Your task to perform on an android device: Clear the cart on ebay. Search for "bose soundlink" on ebay, select the first entry, add it to the cart, then select checkout. Image 0: 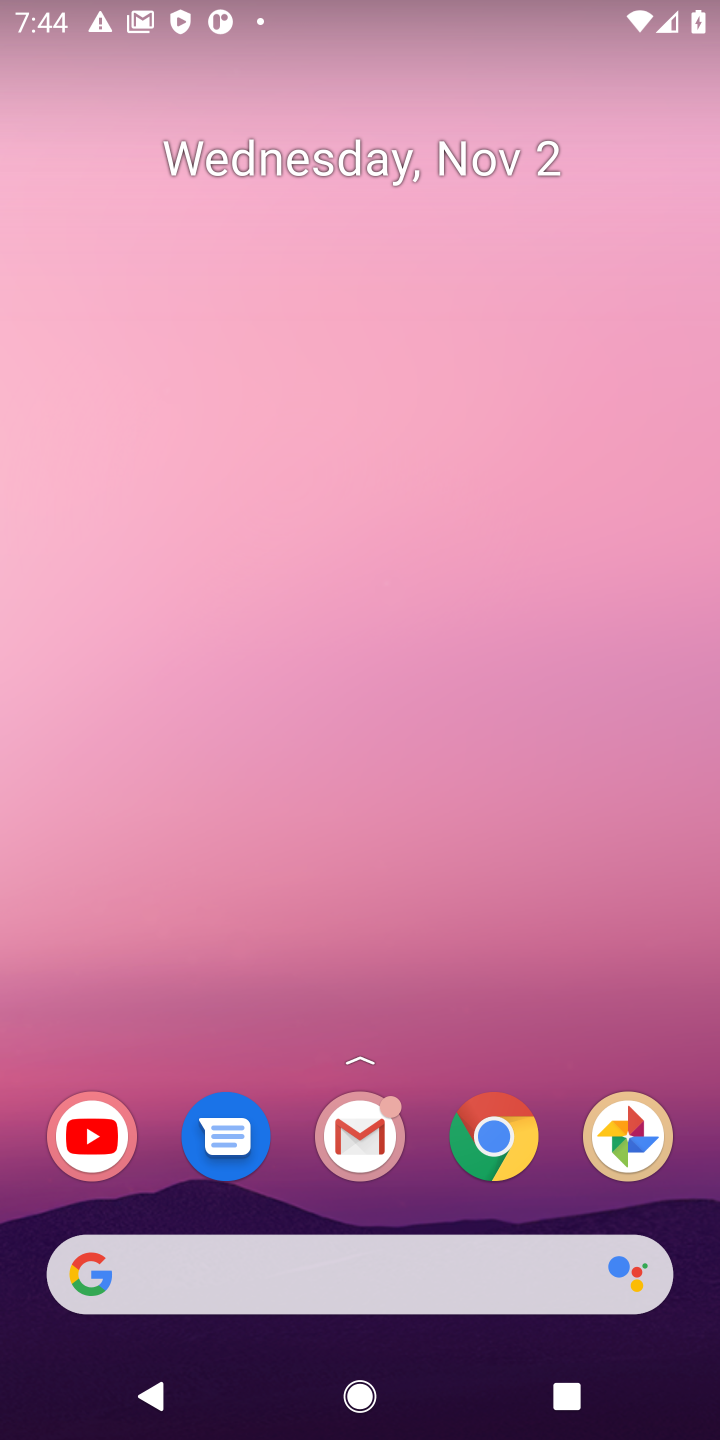
Step 0: drag from (220, 1105) to (336, 504)
Your task to perform on an android device: Clear the cart on ebay. Search for "bose soundlink" on ebay, select the first entry, add it to the cart, then select checkout. Image 1: 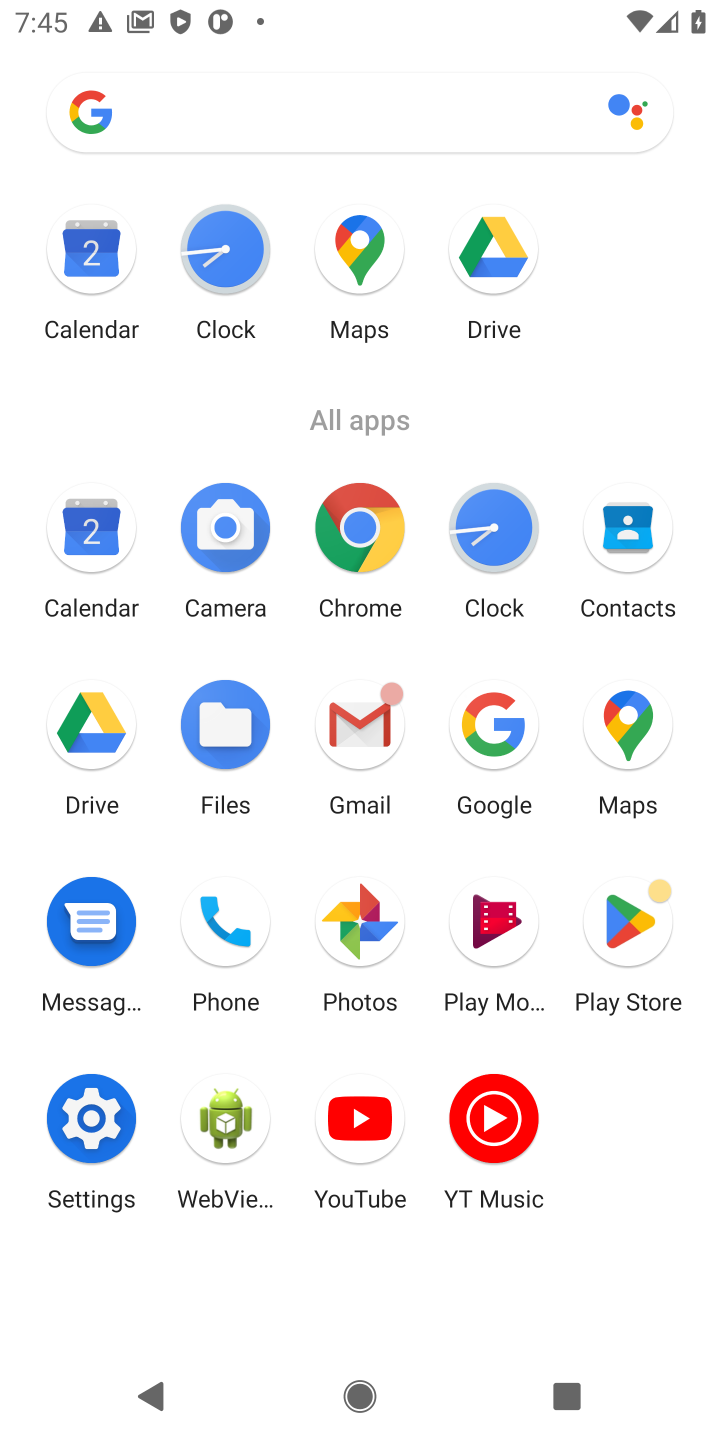
Step 1: click (478, 716)
Your task to perform on an android device: Clear the cart on ebay. Search for "bose soundlink" on ebay, select the first entry, add it to the cart, then select checkout. Image 2: 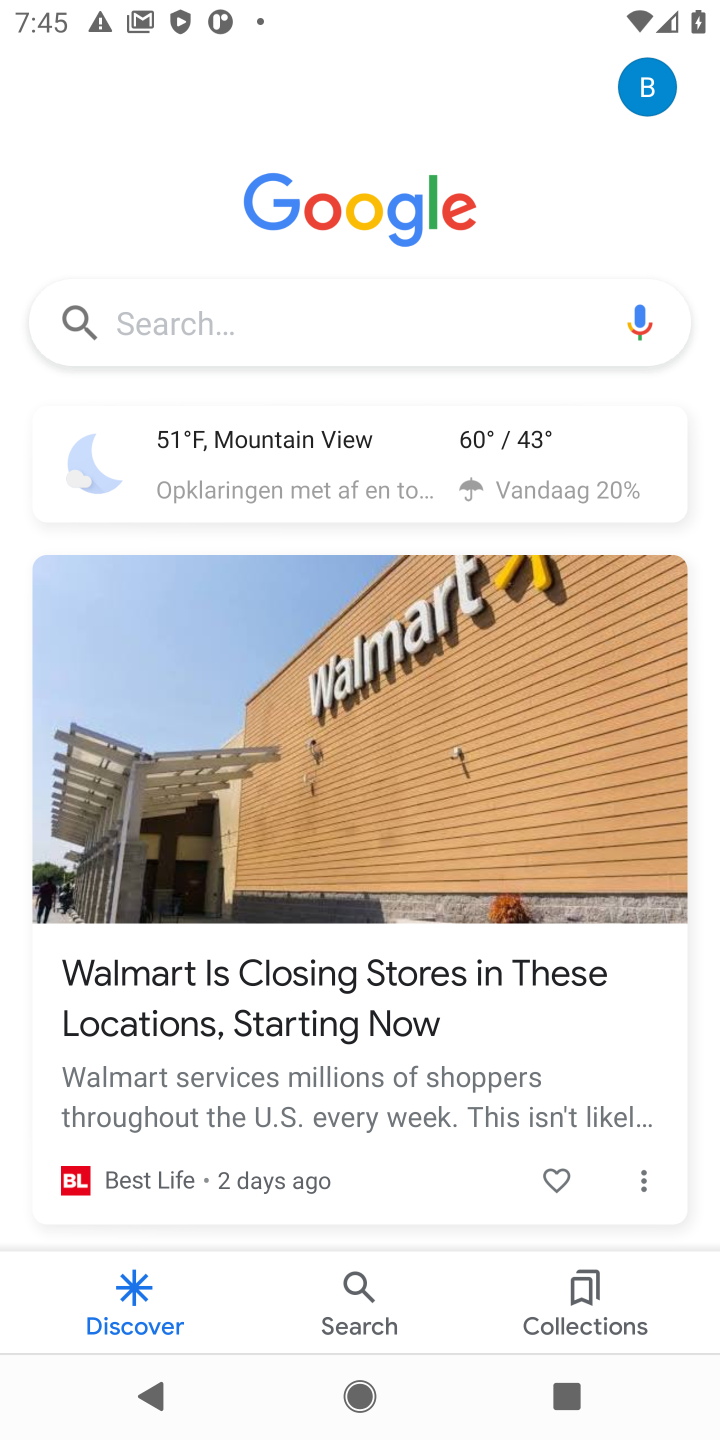
Step 2: click (334, 316)
Your task to perform on an android device: Clear the cart on ebay. Search for "bose soundlink" on ebay, select the first entry, add it to the cart, then select checkout. Image 3: 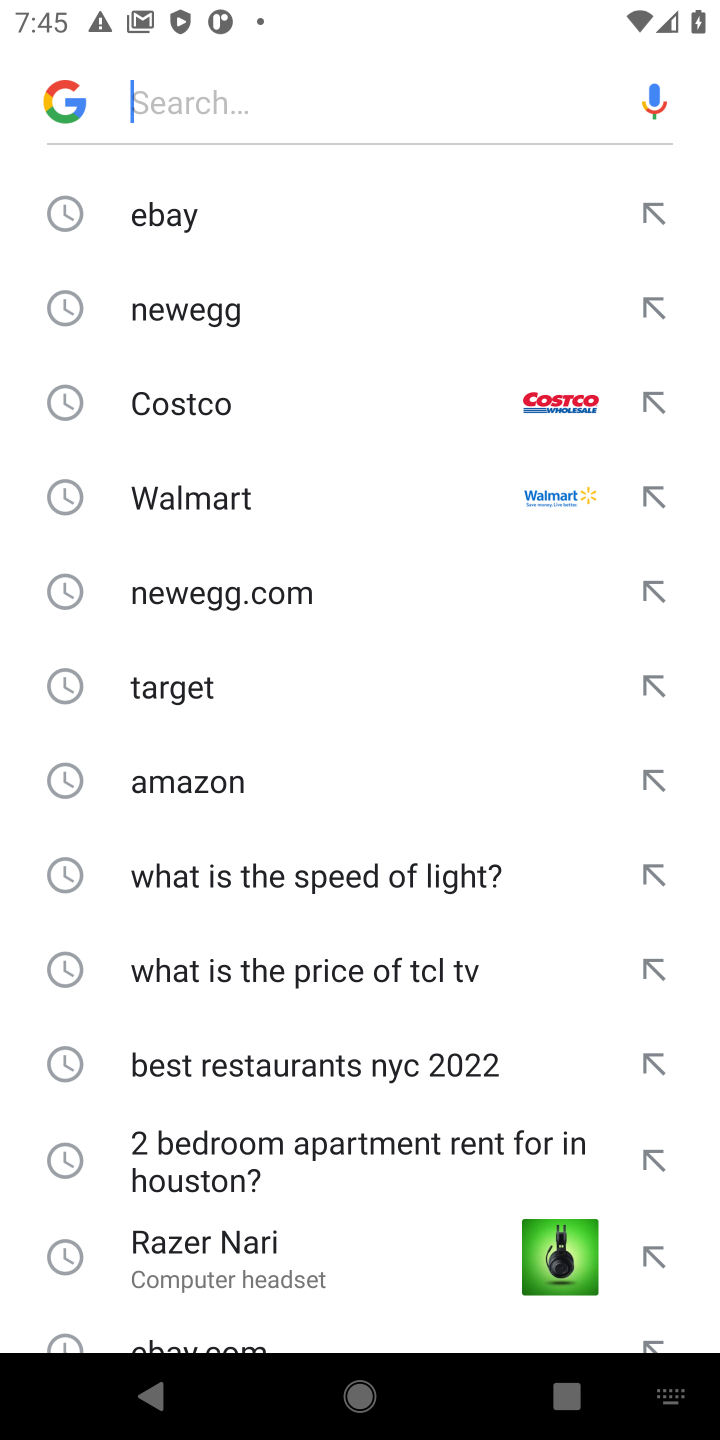
Step 3: type "ebay "
Your task to perform on an android device: Clear the cart on ebay. Search for "bose soundlink" on ebay, select the first entry, add it to the cart, then select checkout. Image 4: 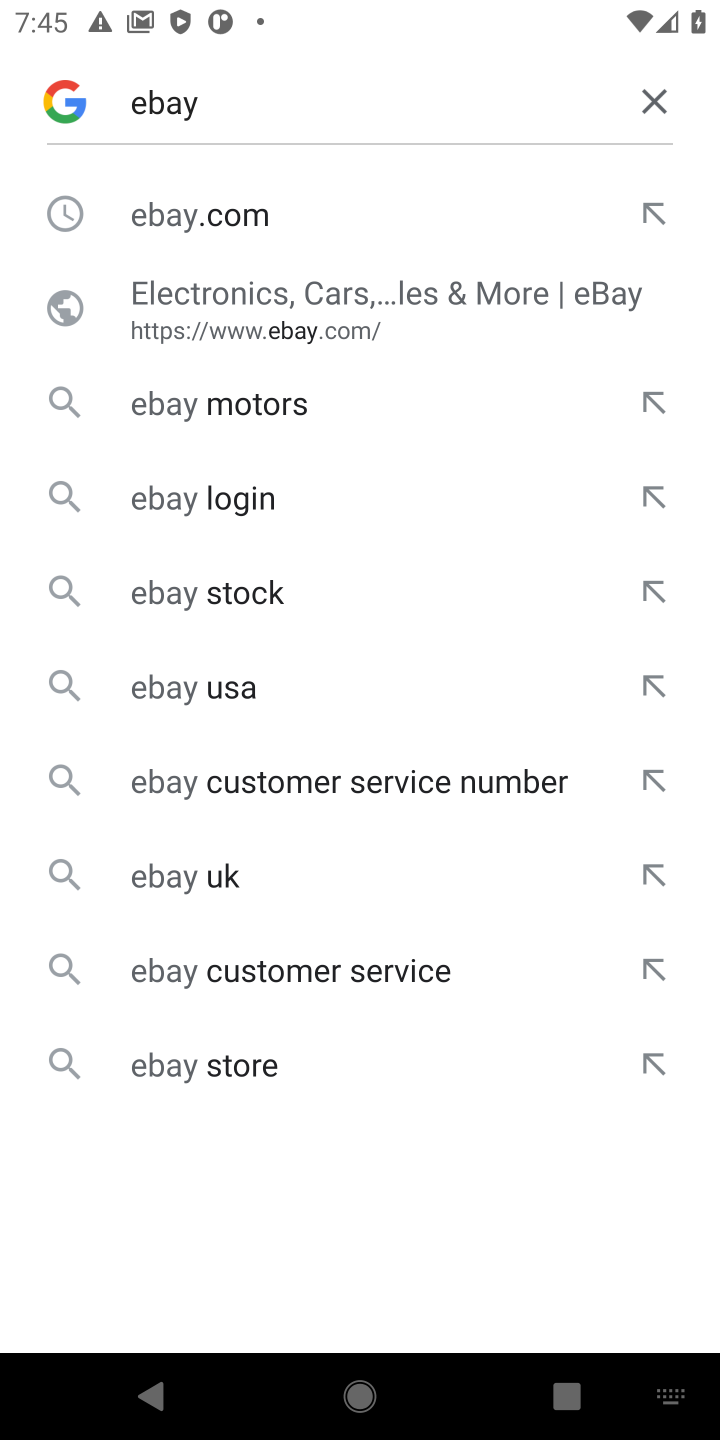
Step 4: click (163, 217)
Your task to perform on an android device: Clear the cart on ebay. Search for "bose soundlink" on ebay, select the first entry, add it to the cart, then select checkout. Image 5: 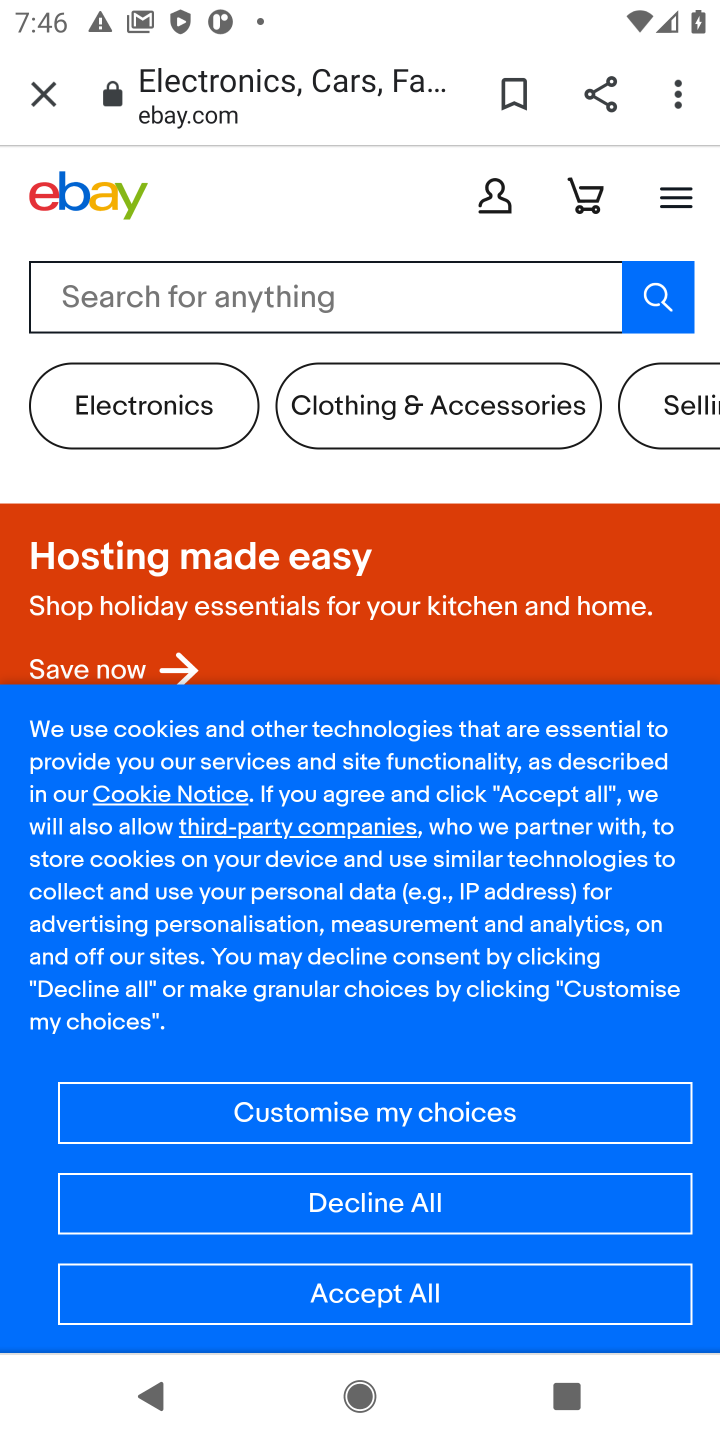
Step 5: click (367, 1287)
Your task to perform on an android device: Clear the cart on ebay. Search for "bose soundlink" on ebay, select the first entry, add it to the cart, then select checkout. Image 6: 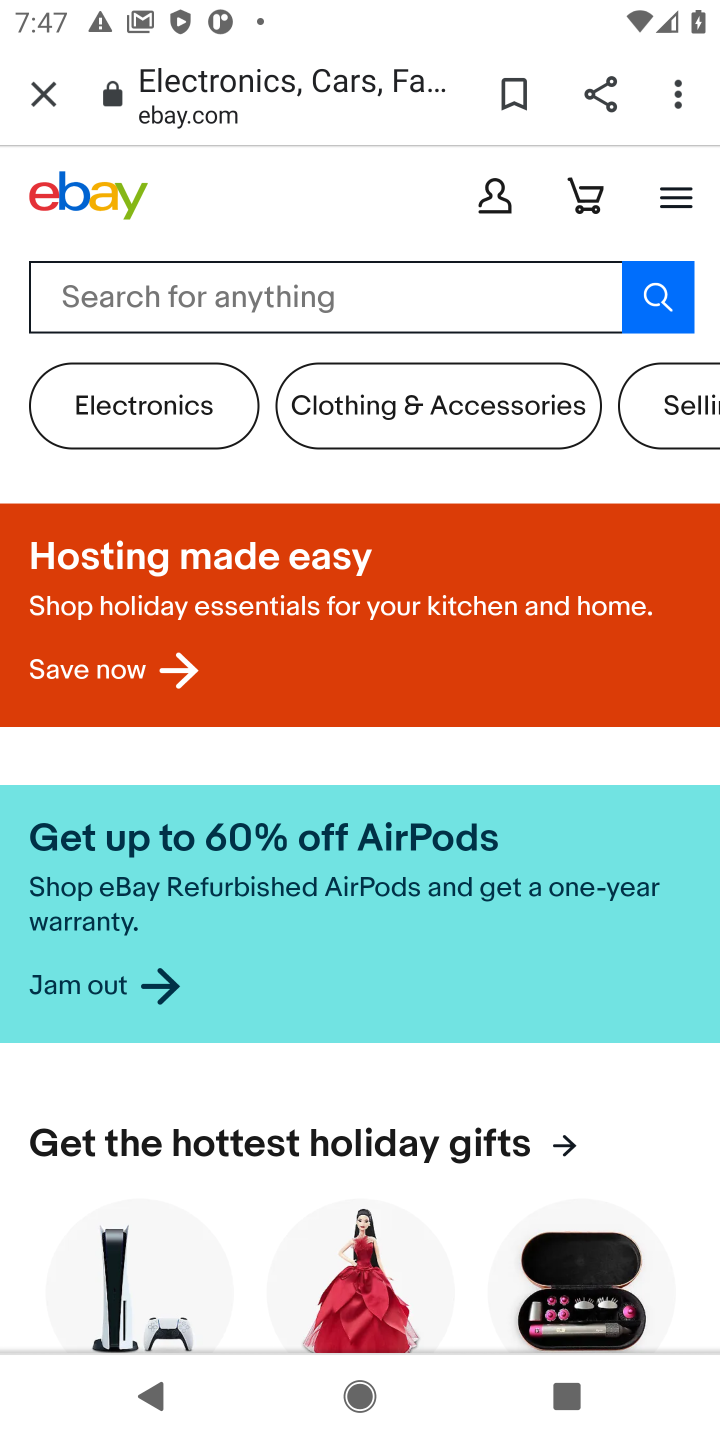
Step 6: click (363, 278)
Your task to perform on an android device: Clear the cart on ebay. Search for "bose soundlink" on ebay, select the first entry, add it to the cart, then select checkout. Image 7: 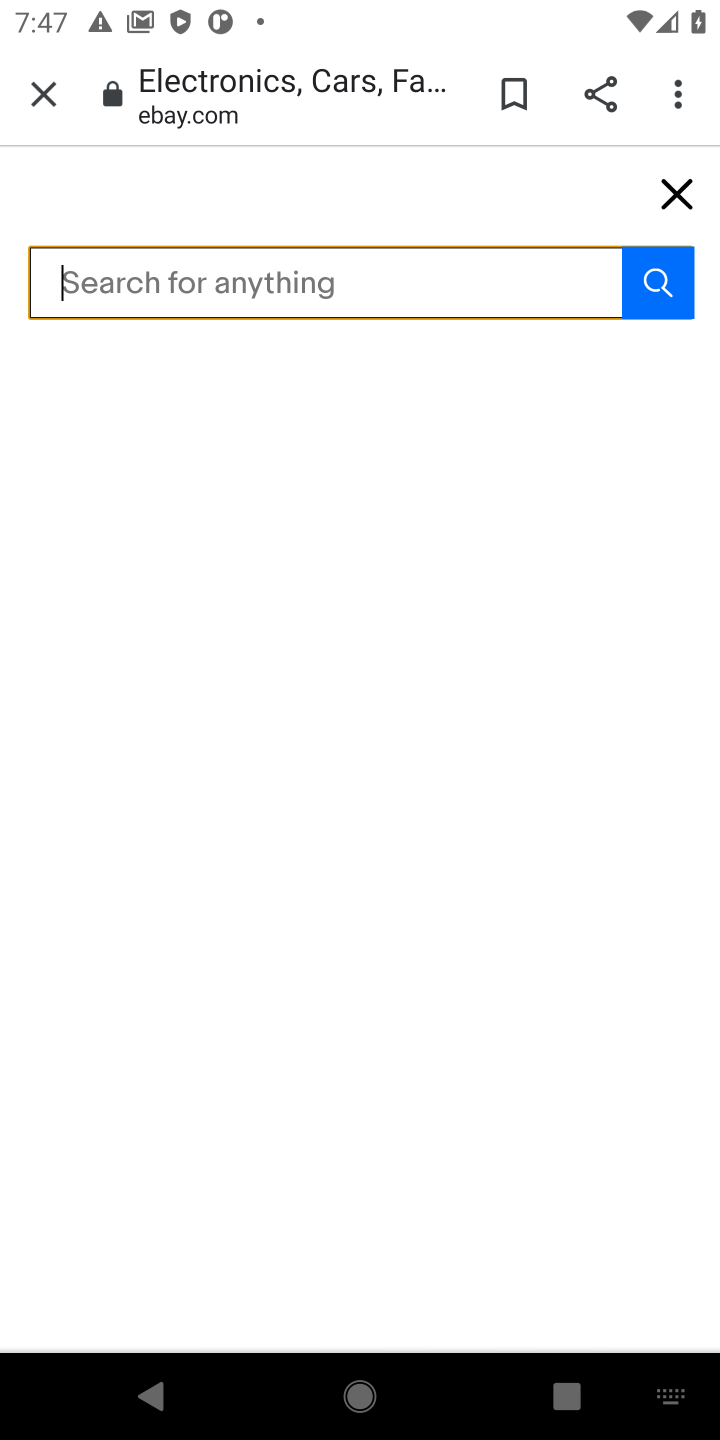
Step 7: type "bose soundlink "
Your task to perform on an android device: Clear the cart on ebay. Search for "bose soundlink" on ebay, select the first entry, add it to the cart, then select checkout. Image 8: 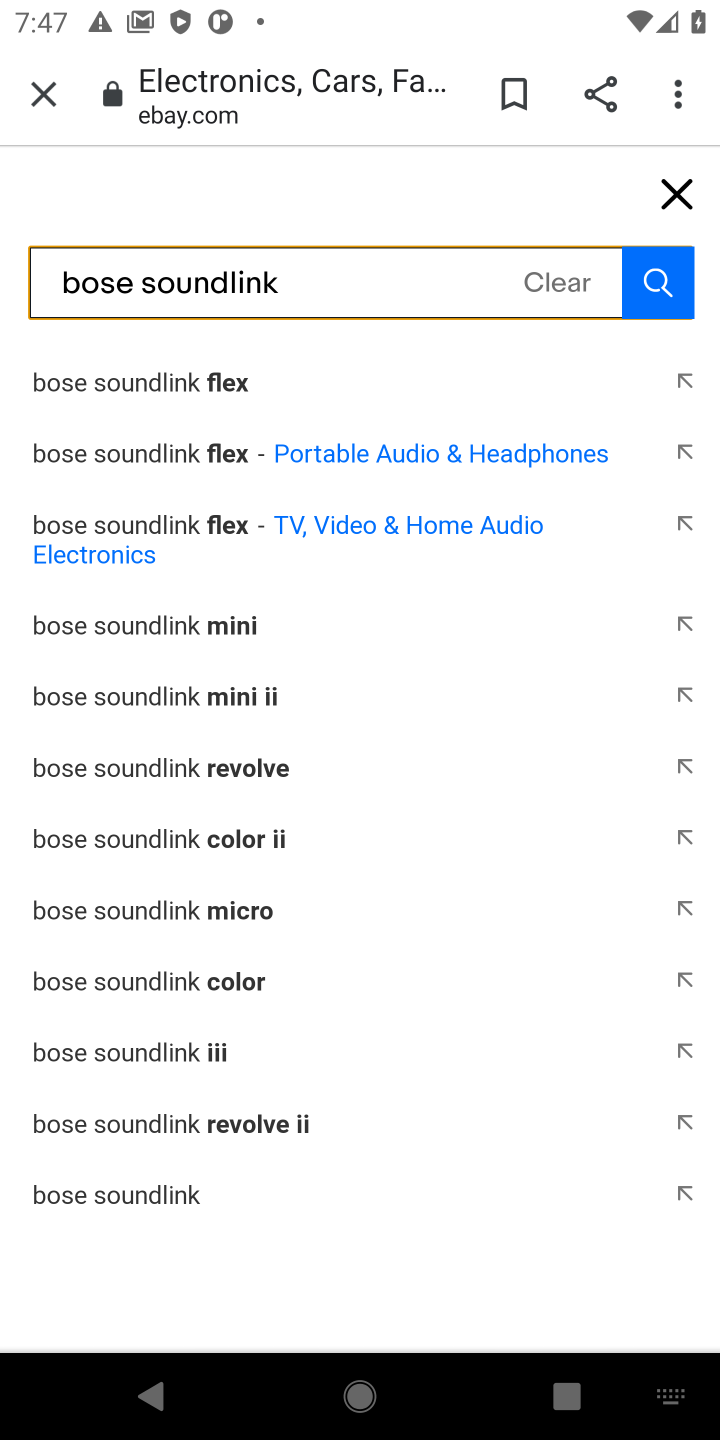
Step 8: click (169, 371)
Your task to perform on an android device: Clear the cart on ebay. Search for "bose soundlink" on ebay, select the first entry, add it to the cart, then select checkout. Image 9: 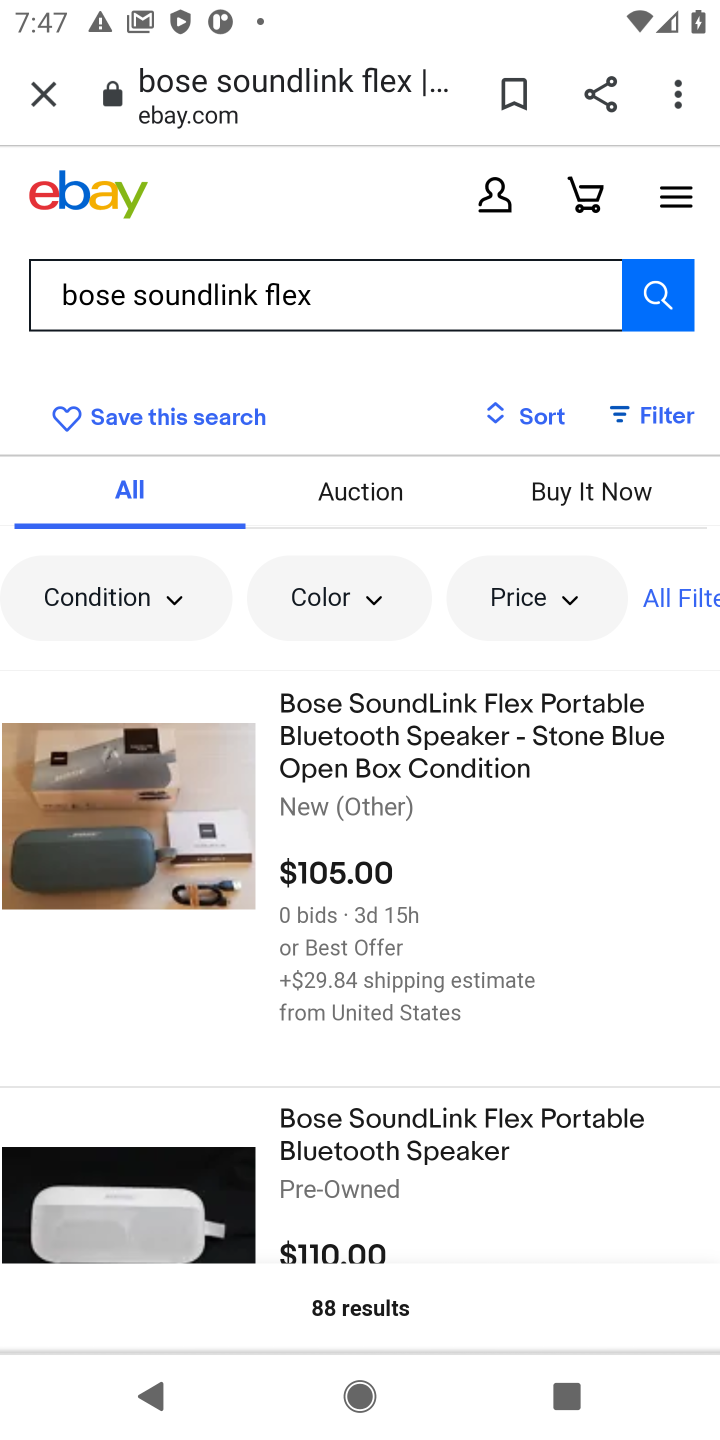
Step 9: click (450, 746)
Your task to perform on an android device: Clear the cart on ebay. Search for "bose soundlink" on ebay, select the first entry, add it to the cart, then select checkout. Image 10: 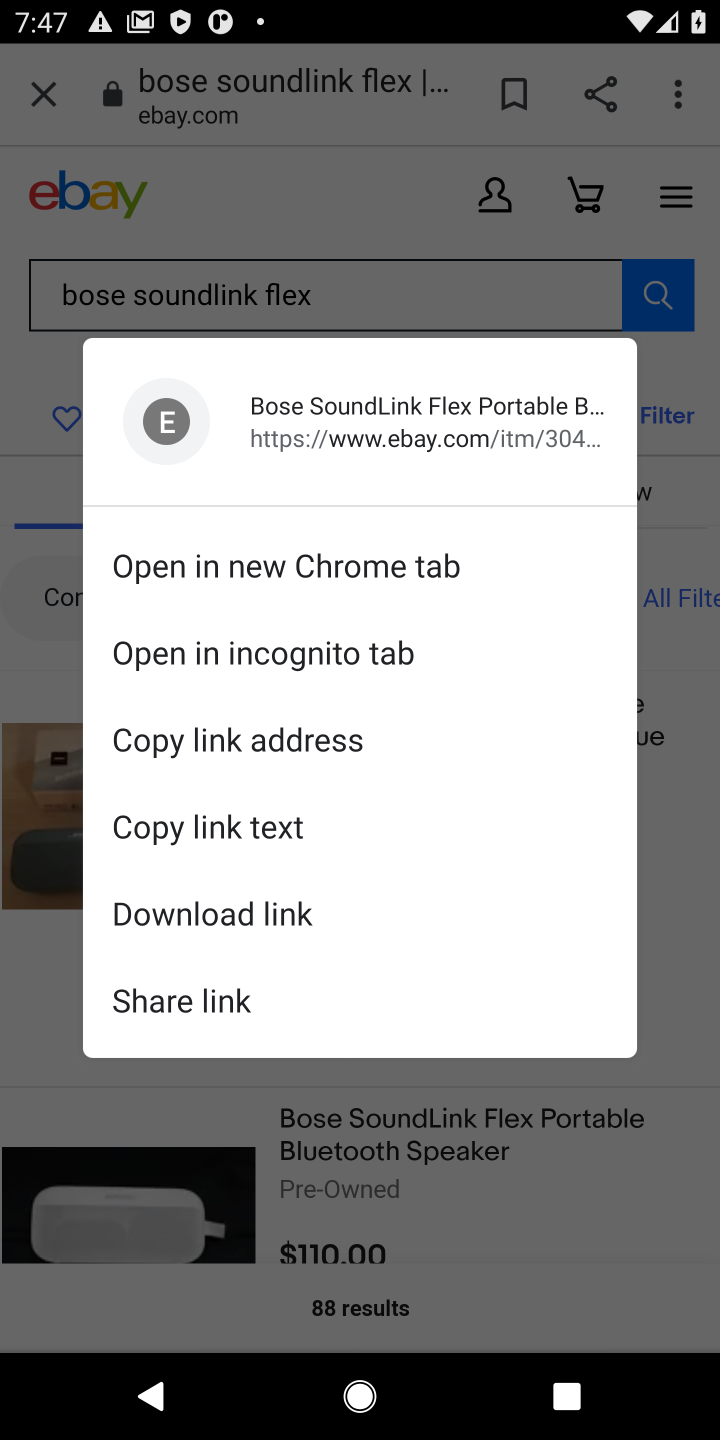
Step 10: click (498, 1190)
Your task to perform on an android device: Clear the cart on ebay. Search for "bose soundlink" on ebay, select the first entry, add it to the cart, then select checkout. Image 11: 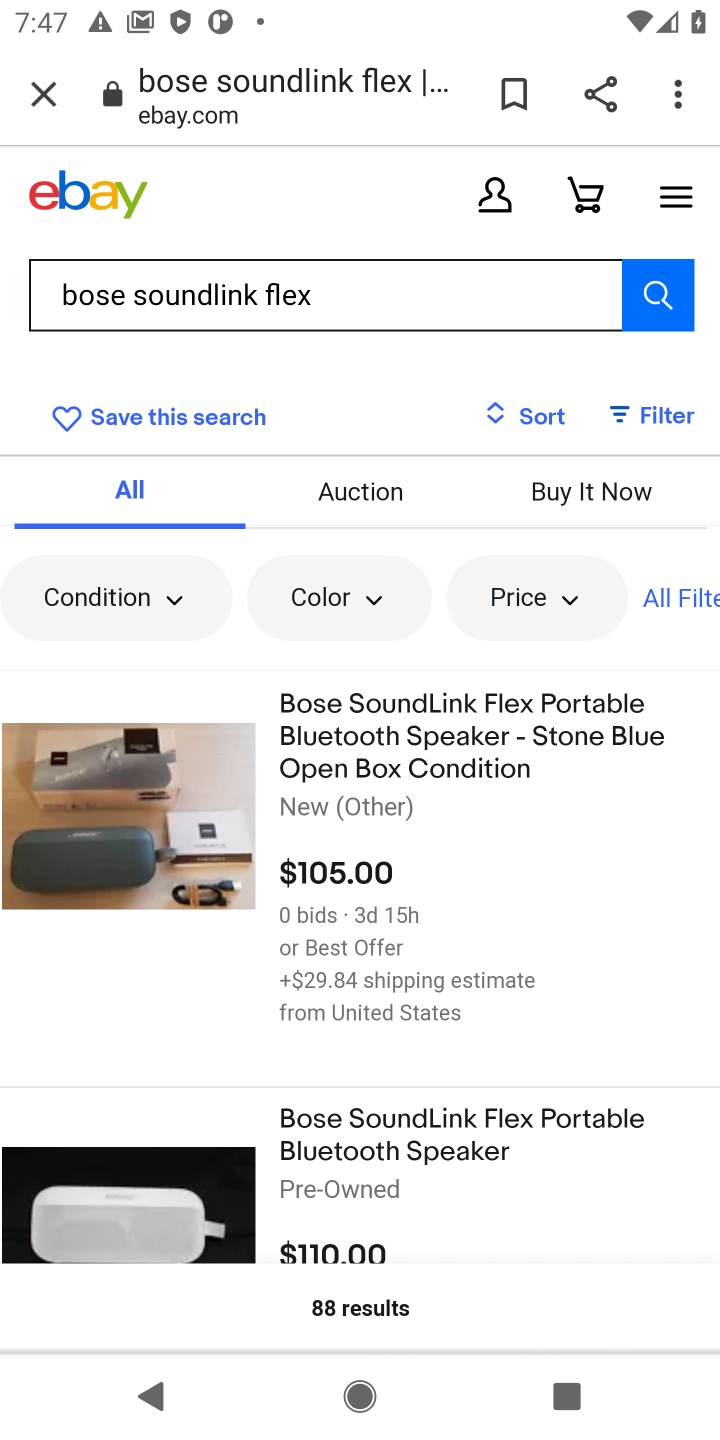
Step 11: drag from (513, 1180) to (552, 395)
Your task to perform on an android device: Clear the cart on ebay. Search for "bose soundlink" on ebay, select the first entry, add it to the cart, then select checkout. Image 12: 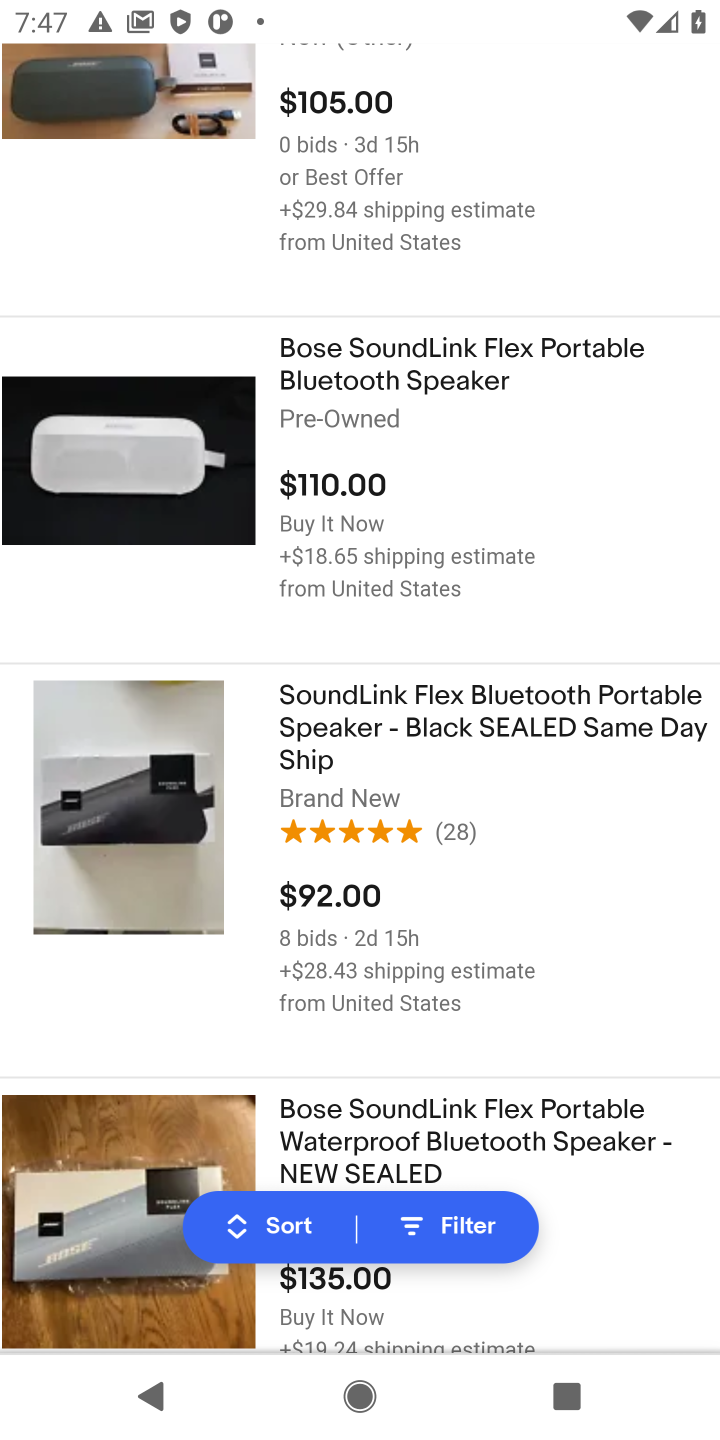
Step 12: click (361, 368)
Your task to perform on an android device: Clear the cart on ebay. Search for "bose soundlink" on ebay, select the first entry, add it to the cart, then select checkout. Image 13: 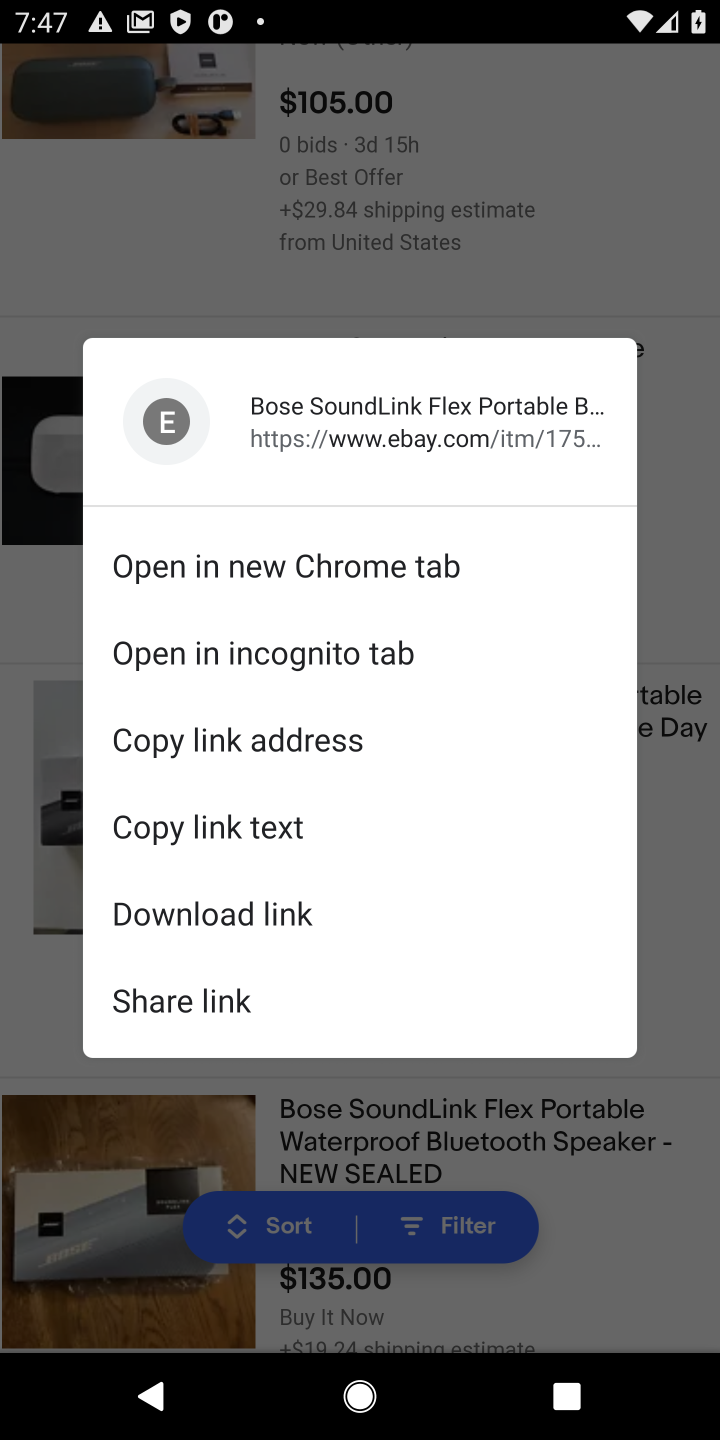
Step 13: click (374, 267)
Your task to perform on an android device: Clear the cart on ebay. Search for "bose soundlink" on ebay, select the first entry, add it to the cart, then select checkout. Image 14: 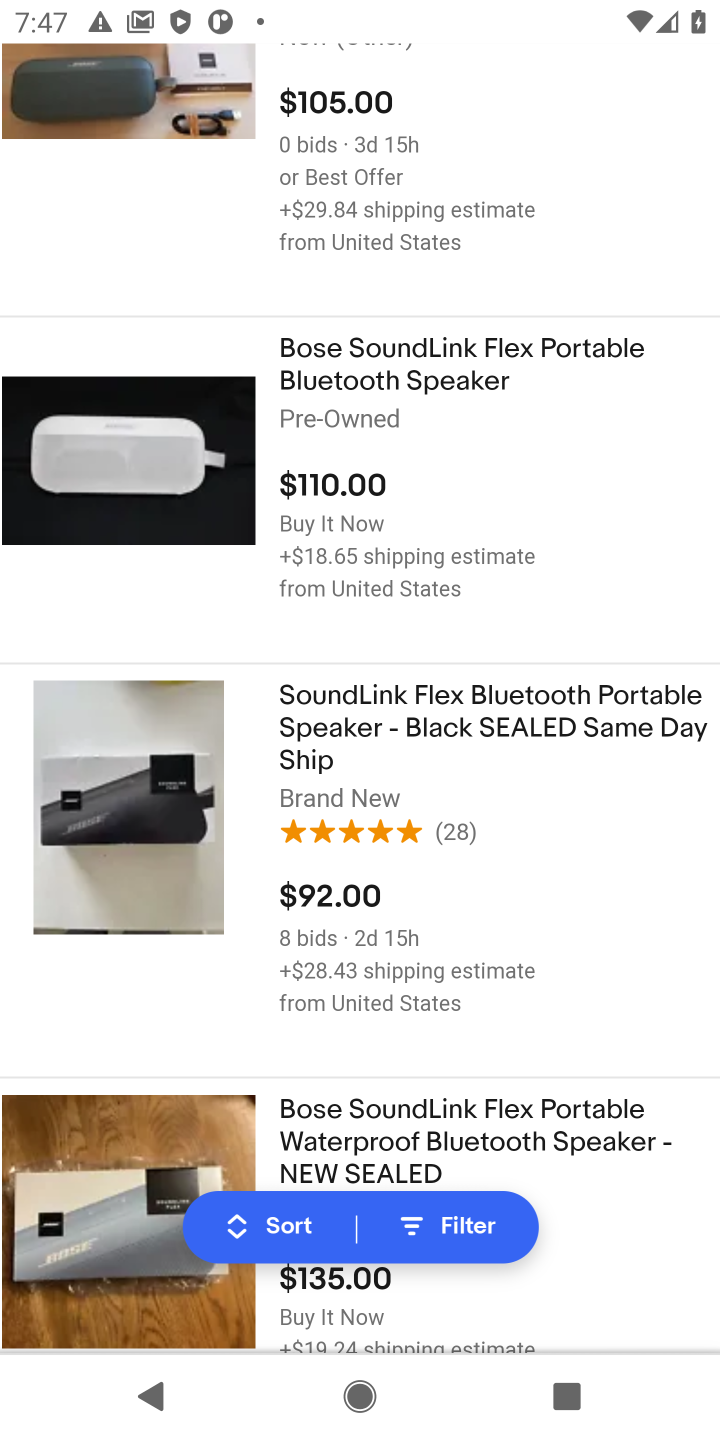
Step 14: drag from (453, 283) to (428, 1145)
Your task to perform on an android device: Clear the cart on ebay. Search for "bose soundlink" on ebay, select the first entry, add it to the cart, then select checkout. Image 15: 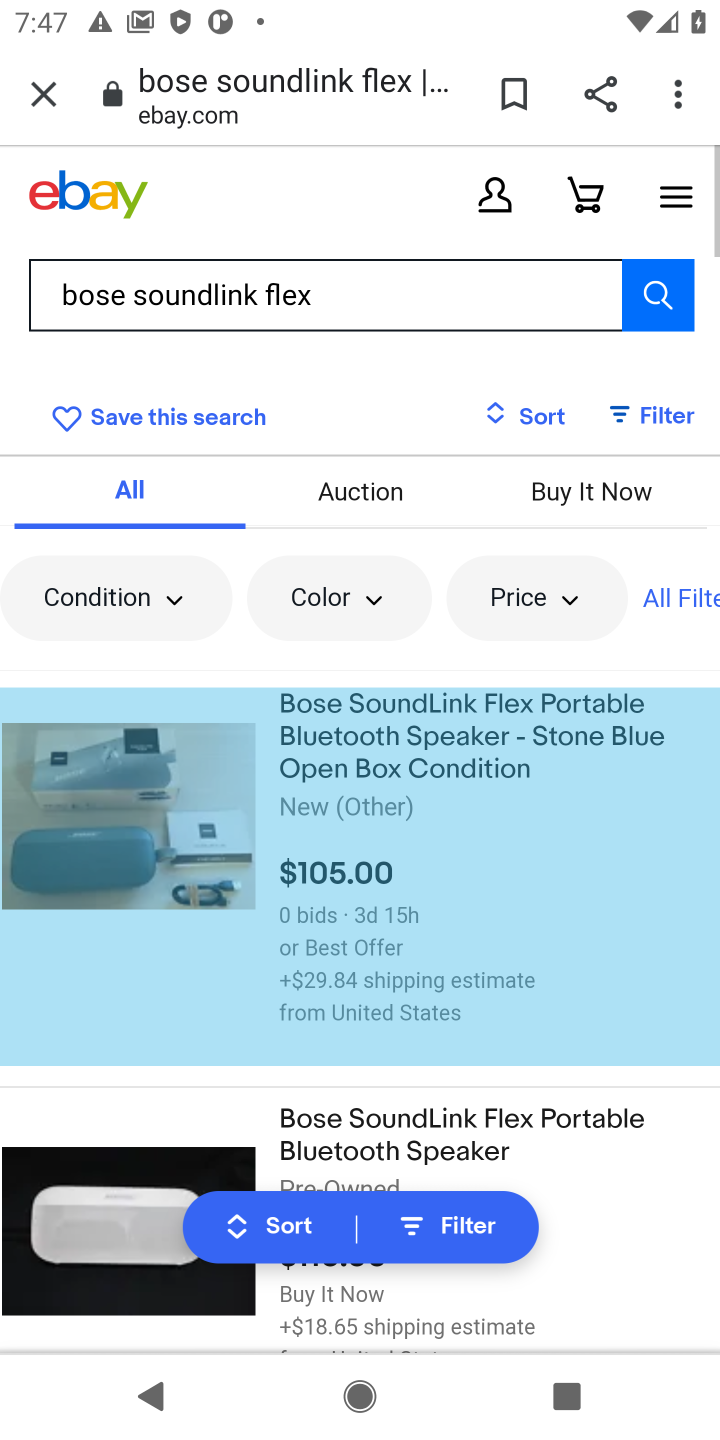
Step 15: press back button
Your task to perform on an android device: Clear the cart on ebay. Search for "bose soundlink" on ebay, select the first entry, add it to the cart, then select checkout. Image 16: 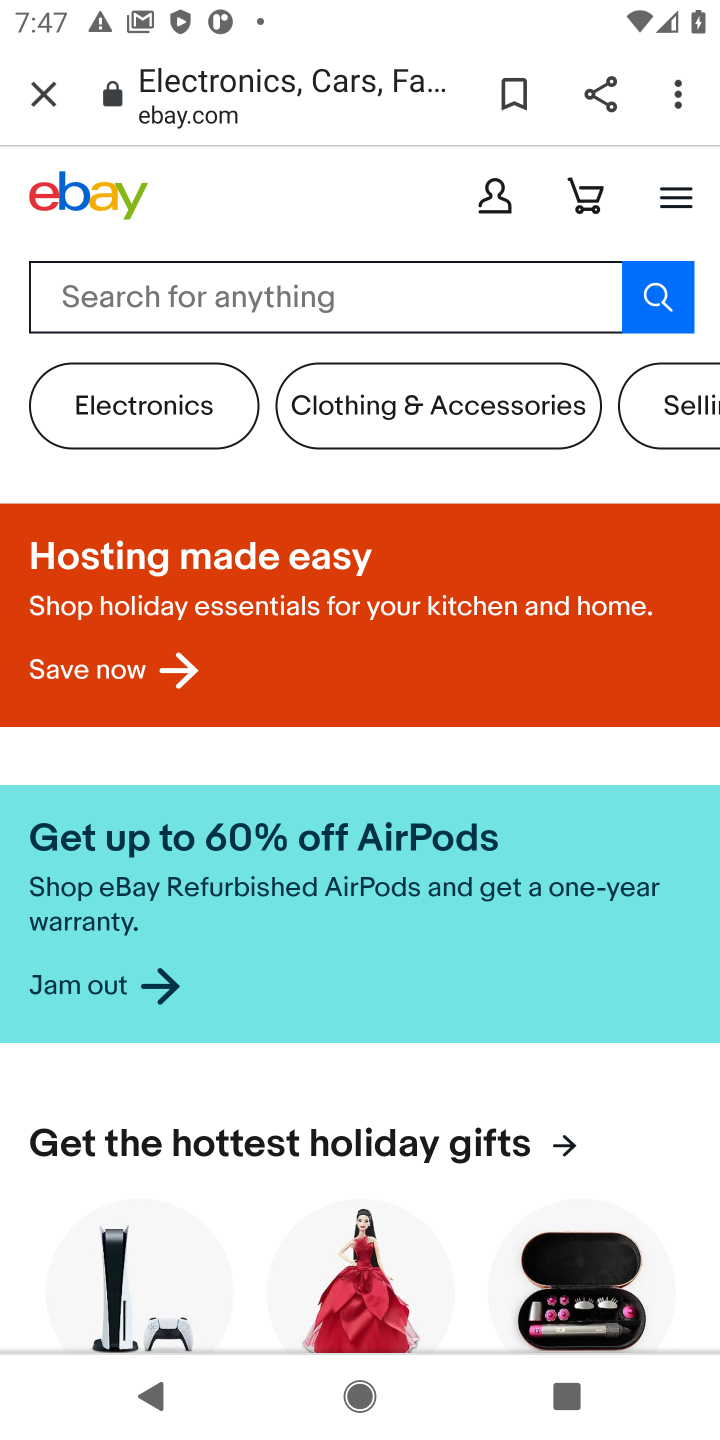
Step 16: click (281, 274)
Your task to perform on an android device: Clear the cart on ebay. Search for "bose soundlink" on ebay, select the first entry, add it to the cart, then select checkout. Image 17: 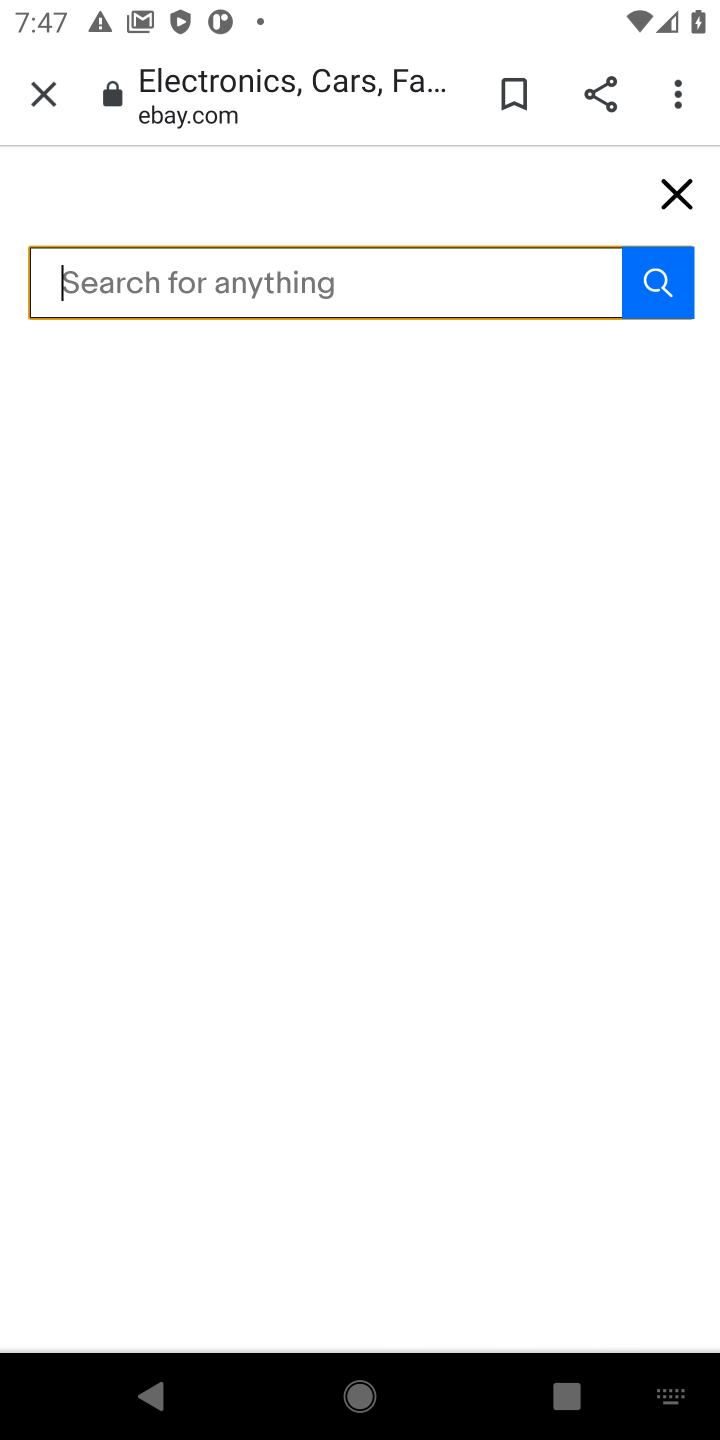
Step 17: type "bose soundlink "
Your task to perform on an android device: Clear the cart on ebay. Search for "bose soundlink" on ebay, select the first entry, add it to the cart, then select checkout. Image 18: 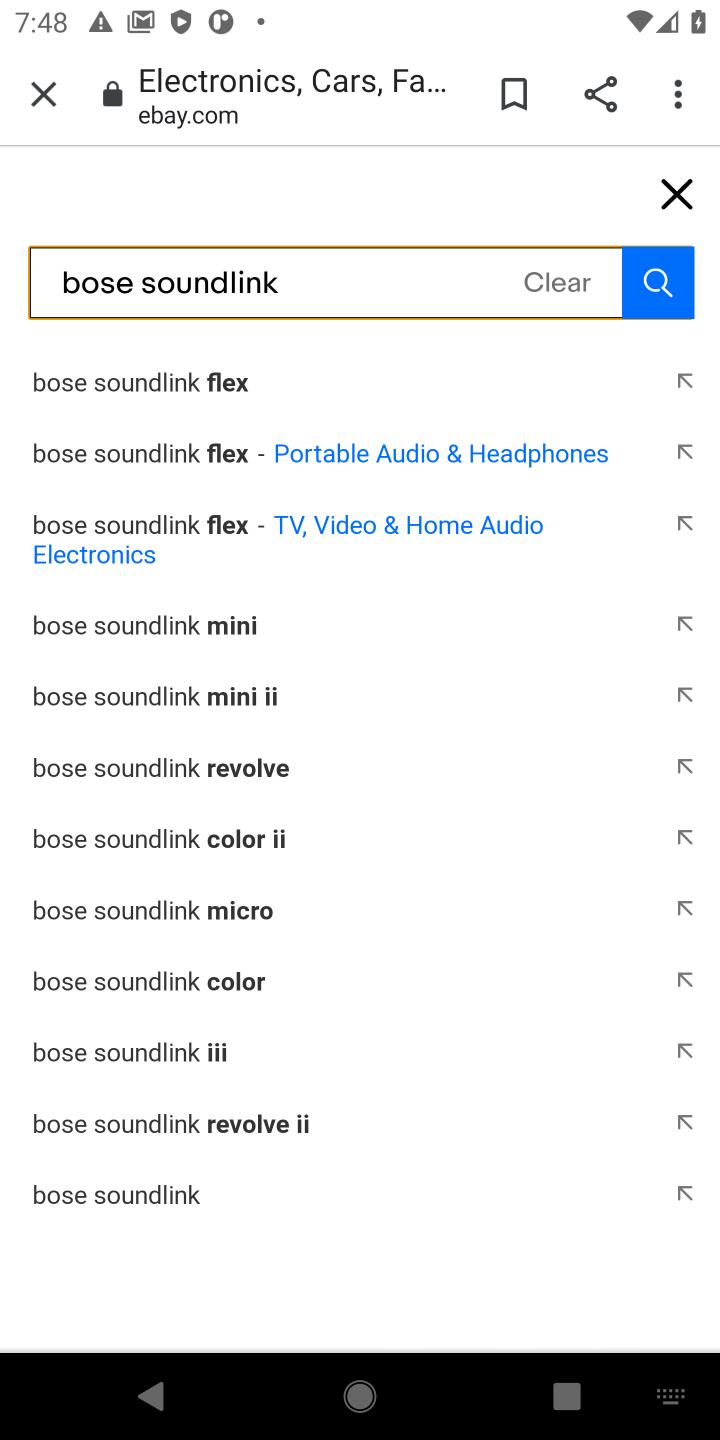
Step 18: click (193, 609)
Your task to perform on an android device: Clear the cart on ebay. Search for "bose soundlink" on ebay, select the first entry, add it to the cart, then select checkout. Image 19: 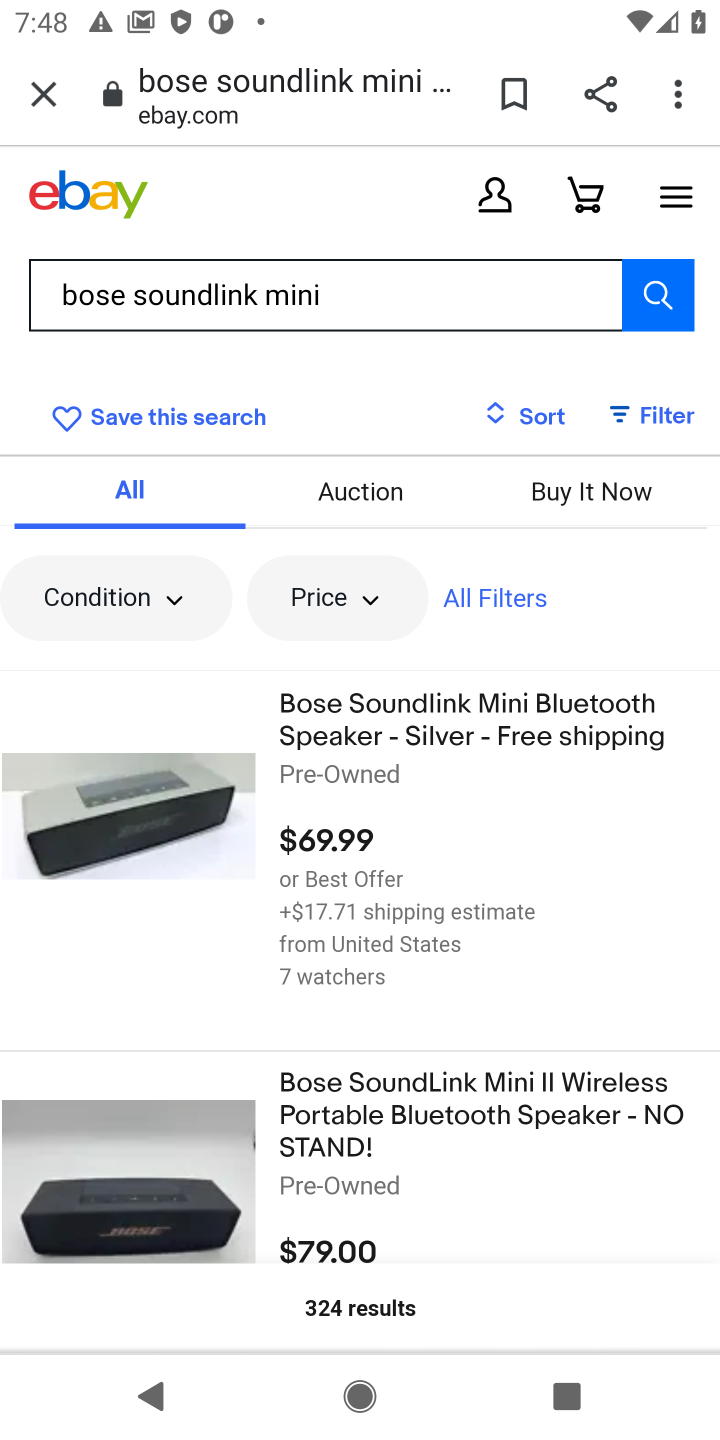
Step 19: click (521, 751)
Your task to perform on an android device: Clear the cart on ebay. Search for "bose soundlink" on ebay, select the first entry, add it to the cart, then select checkout. Image 20: 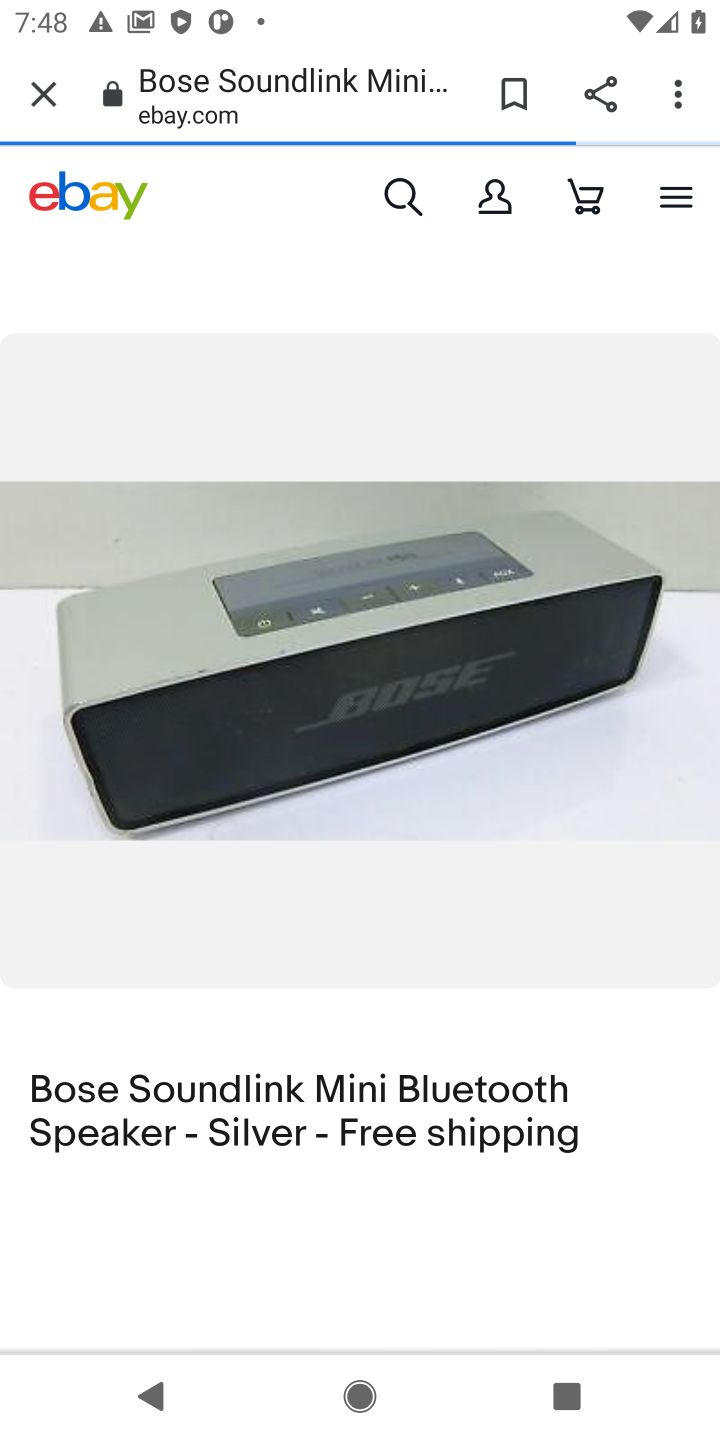
Step 20: drag from (421, 1219) to (531, 410)
Your task to perform on an android device: Clear the cart on ebay. Search for "bose soundlink" on ebay, select the first entry, add it to the cart, then select checkout. Image 21: 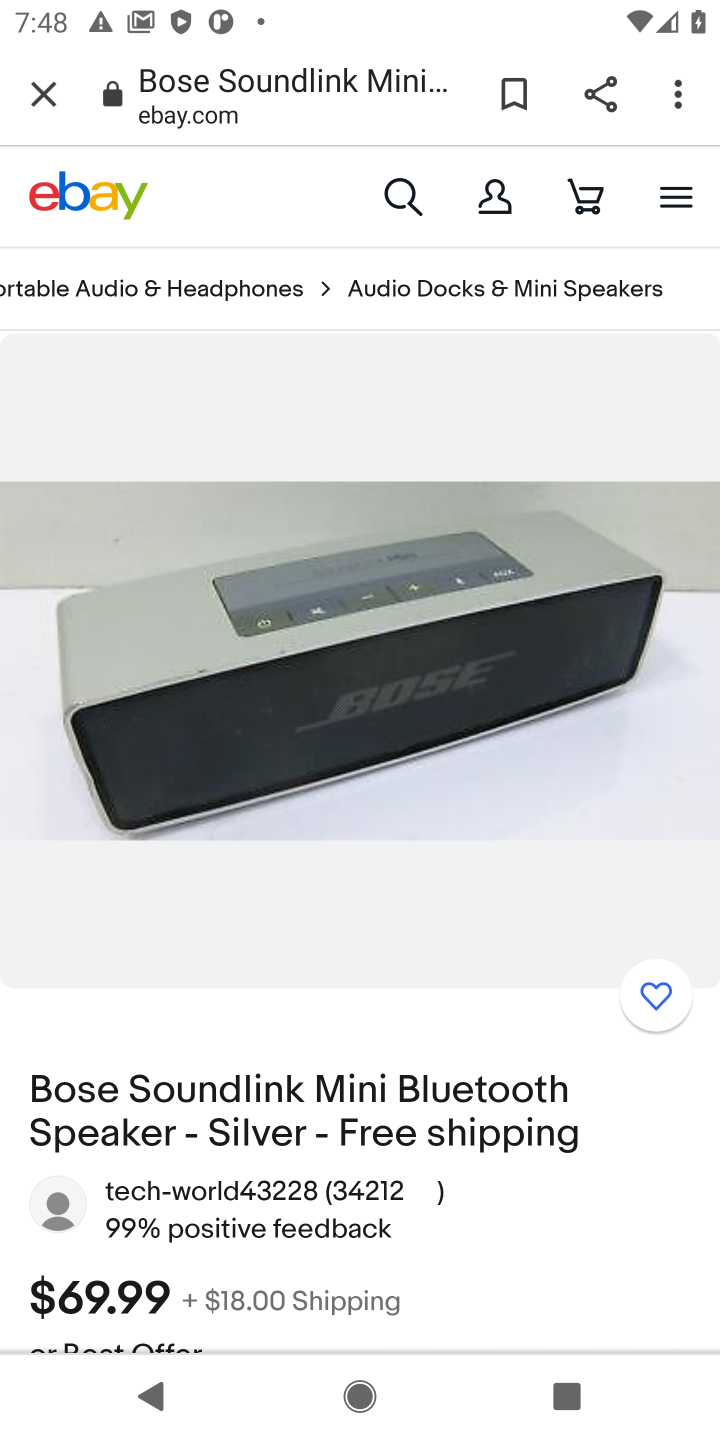
Step 21: drag from (421, 1079) to (511, 398)
Your task to perform on an android device: Clear the cart on ebay. Search for "bose soundlink" on ebay, select the first entry, add it to the cart, then select checkout. Image 22: 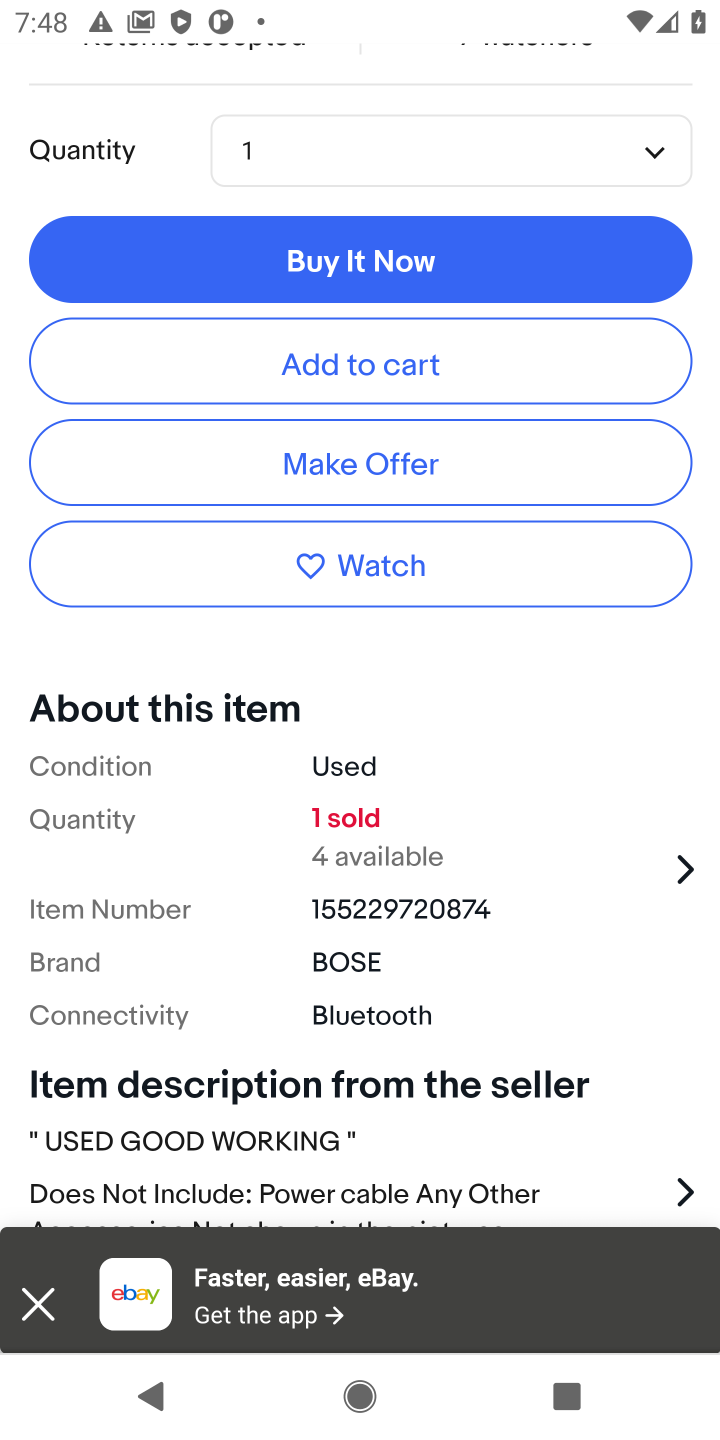
Step 22: click (342, 354)
Your task to perform on an android device: Clear the cart on ebay. Search for "bose soundlink" on ebay, select the first entry, add it to the cart, then select checkout. Image 23: 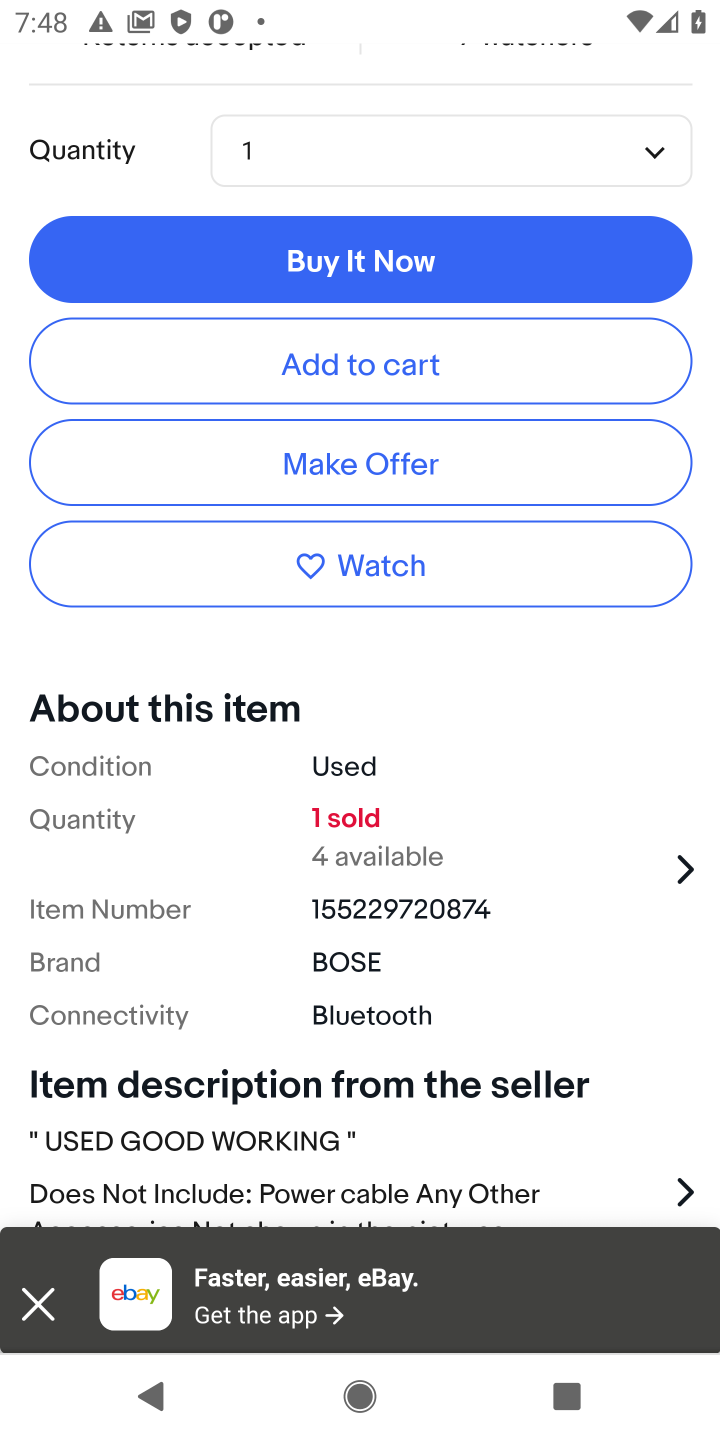
Step 23: click (407, 358)
Your task to perform on an android device: Clear the cart on ebay. Search for "bose soundlink" on ebay, select the first entry, add it to the cart, then select checkout. Image 24: 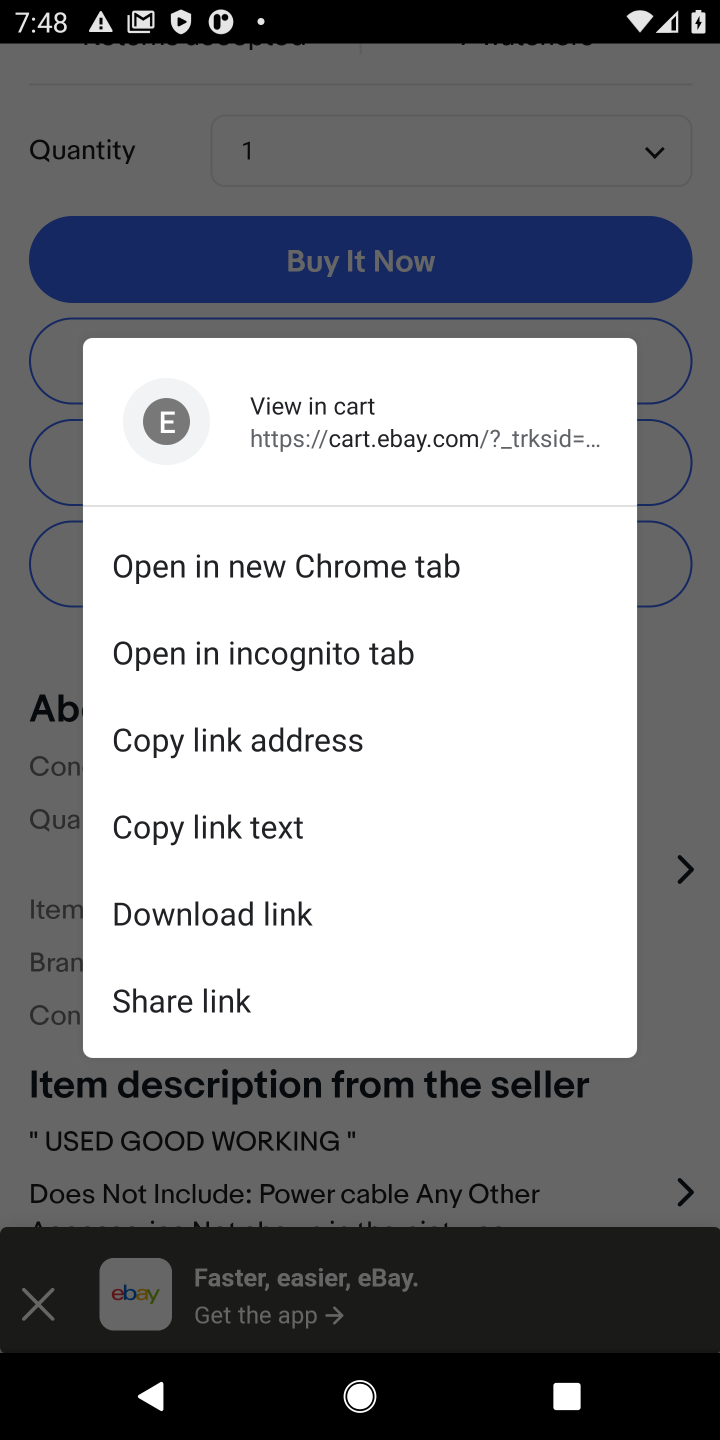
Step 24: task complete